Your task to perform on an android device: change keyboard looks Image 0: 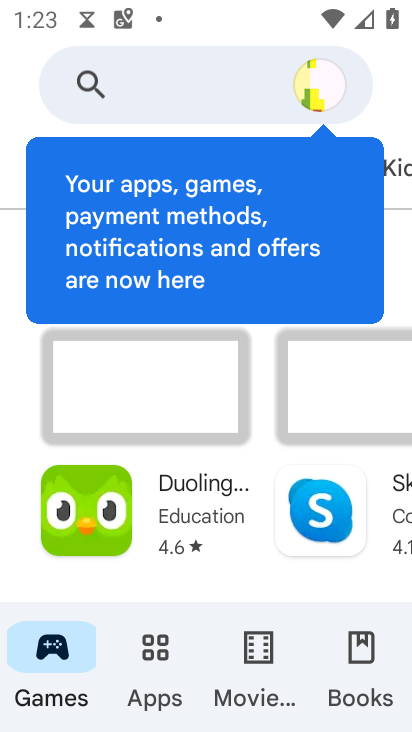
Step 0: press home button
Your task to perform on an android device: change keyboard looks Image 1: 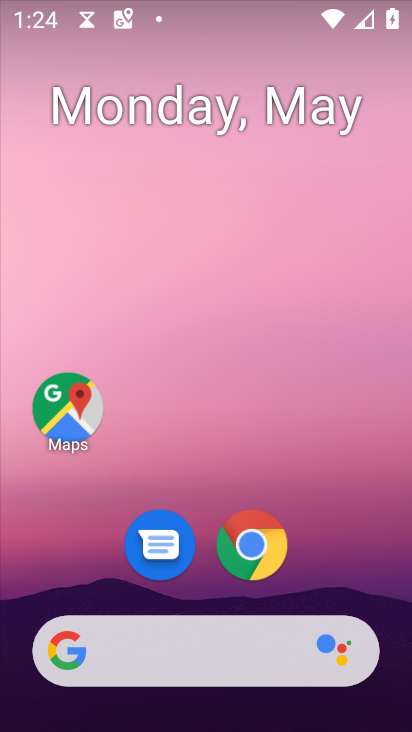
Step 1: drag from (368, 573) to (312, 304)
Your task to perform on an android device: change keyboard looks Image 2: 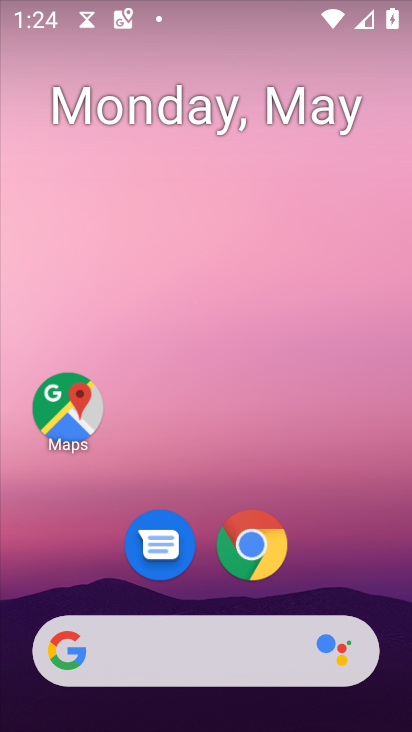
Step 2: drag from (332, 519) to (357, 297)
Your task to perform on an android device: change keyboard looks Image 3: 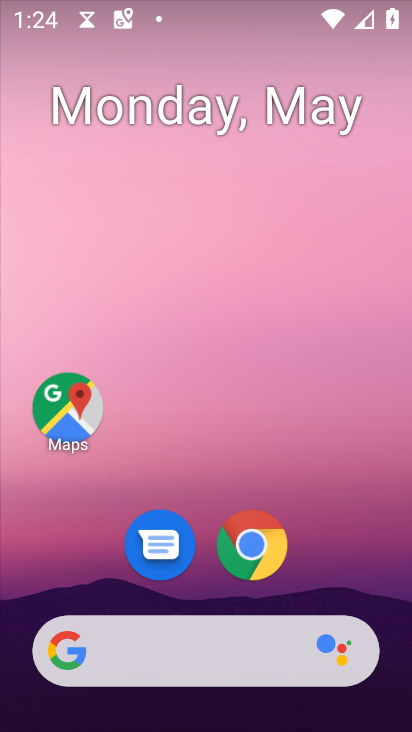
Step 3: drag from (302, 570) to (271, 251)
Your task to perform on an android device: change keyboard looks Image 4: 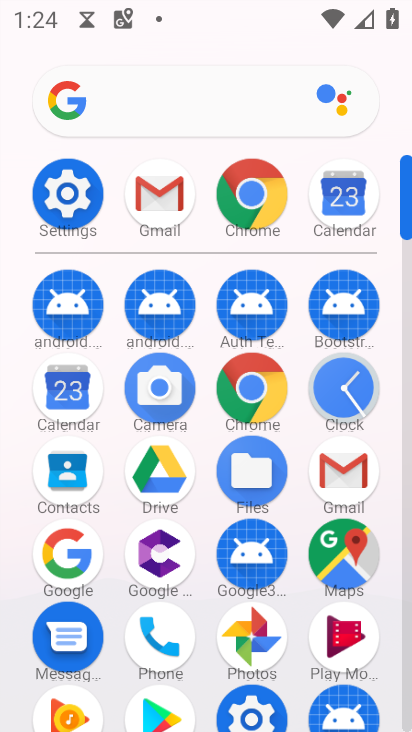
Step 4: click (77, 191)
Your task to perform on an android device: change keyboard looks Image 5: 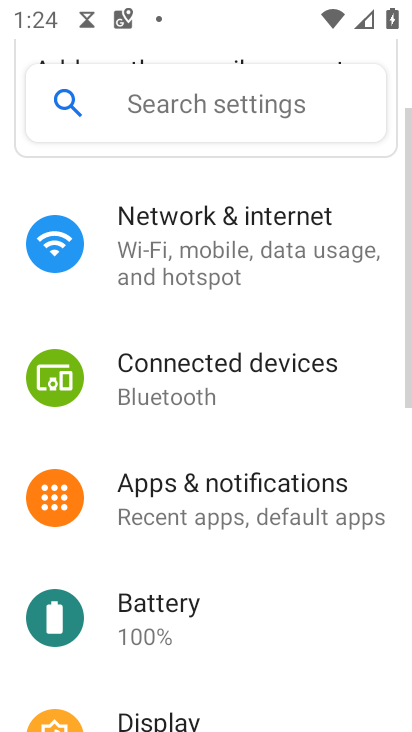
Step 5: drag from (221, 581) to (319, 162)
Your task to perform on an android device: change keyboard looks Image 6: 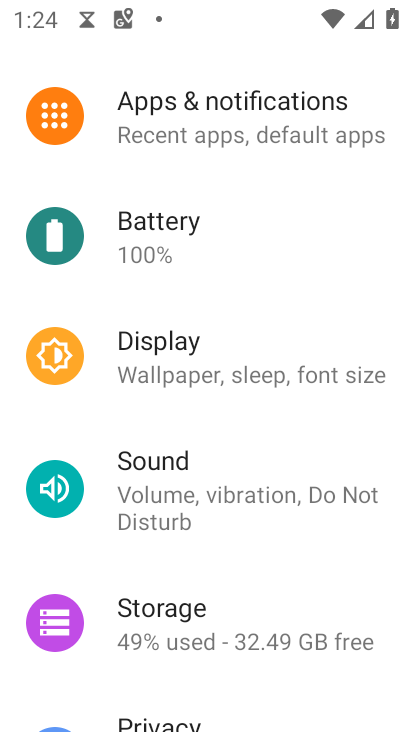
Step 6: drag from (211, 567) to (297, 241)
Your task to perform on an android device: change keyboard looks Image 7: 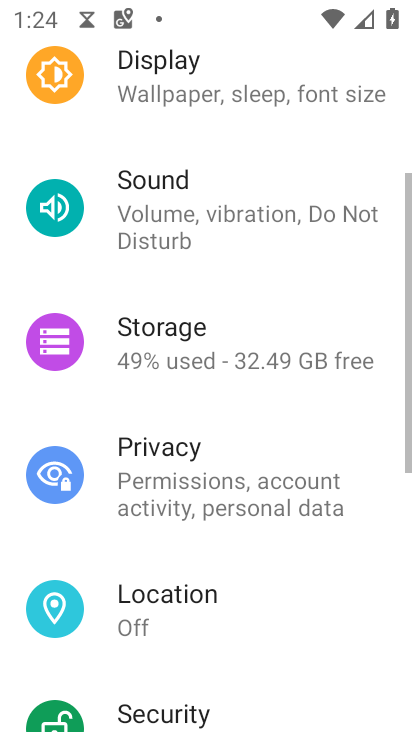
Step 7: drag from (218, 599) to (301, 210)
Your task to perform on an android device: change keyboard looks Image 8: 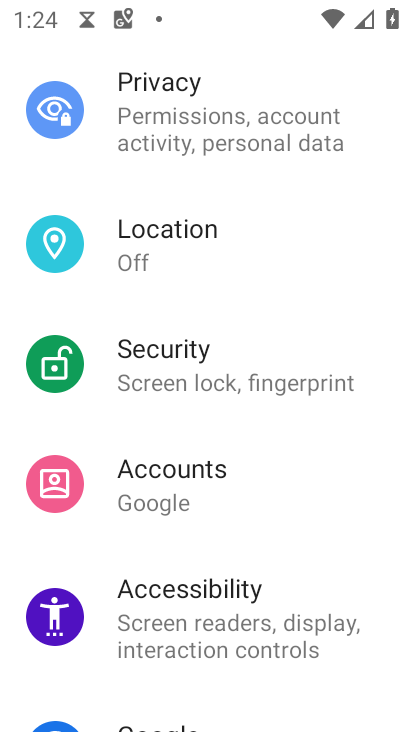
Step 8: click (178, 626)
Your task to perform on an android device: change keyboard looks Image 9: 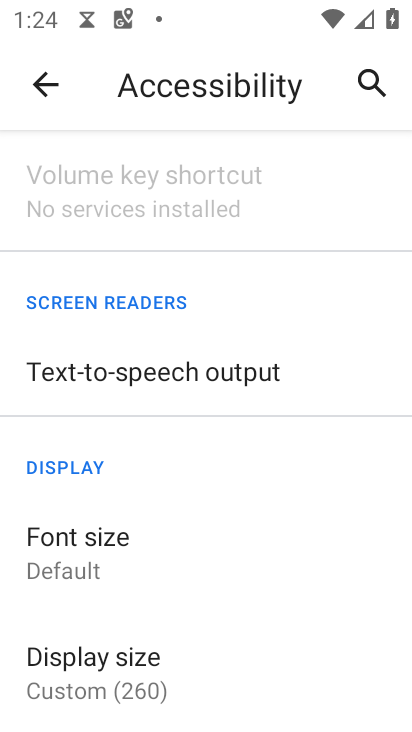
Step 9: click (38, 96)
Your task to perform on an android device: change keyboard looks Image 10: 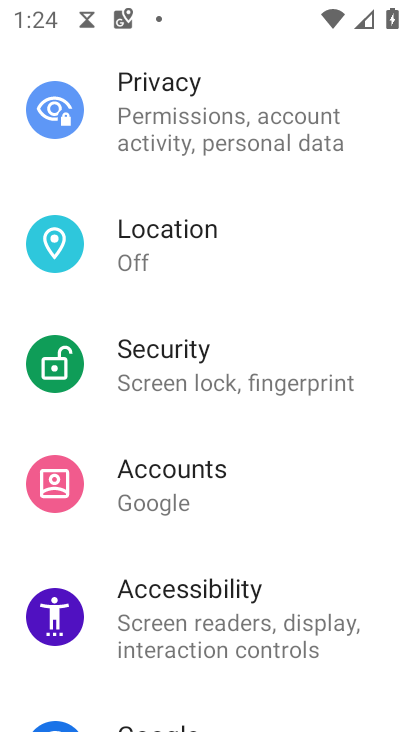
Step 10: drag from (203, 345) to (287, 73)
Your task to perform on an android device: change keyboard looks Image 11: 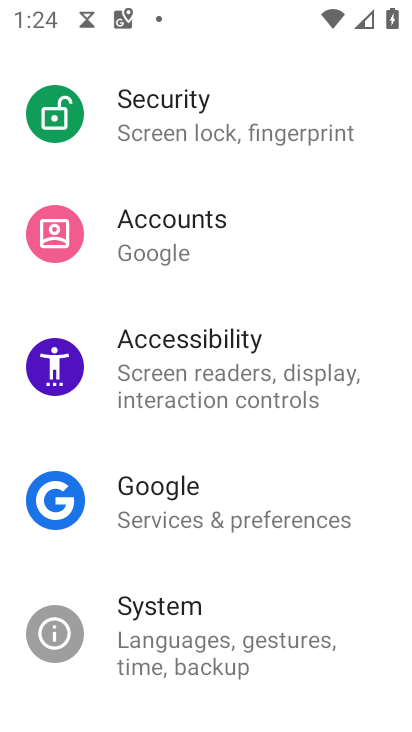
Step 11: click (213, 661)
Your task to perform on an android device: change keyboard looks Image 12: 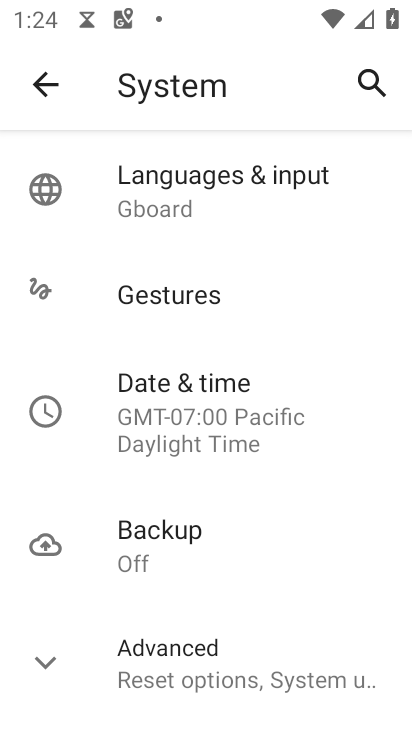
Step 12: click (176, 192)
Your task to perform on an android device: change keyboard looks Image 13: 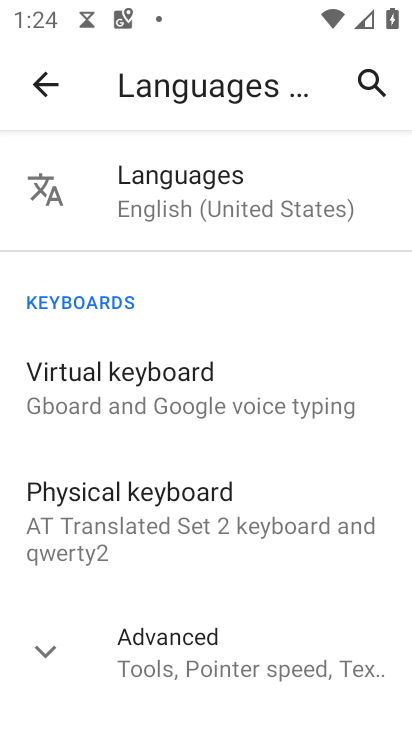
Step 13: click (126, 400)
Your task to perform on an android device: change keyboard looks Image 14: 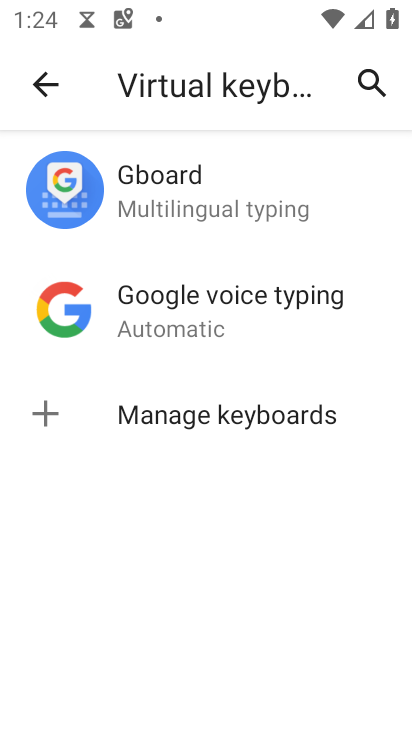
Step 14: click (169, 186)
Your task to perform on an android device: change keyboard looks Image 15: 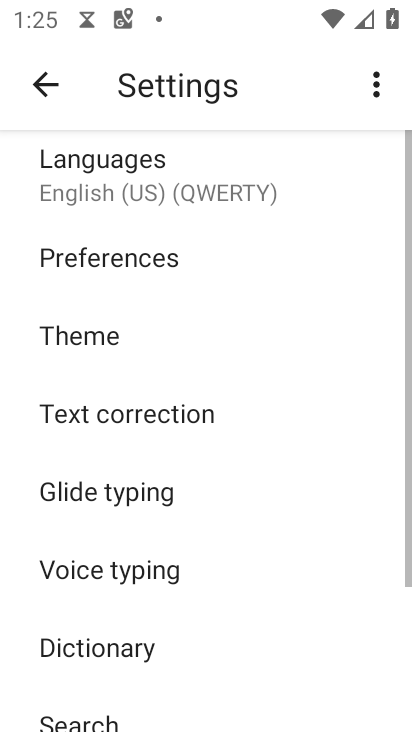
Step 15: click (172, 486)
Your task to perform on an android device: change keyboard looks Image 16: 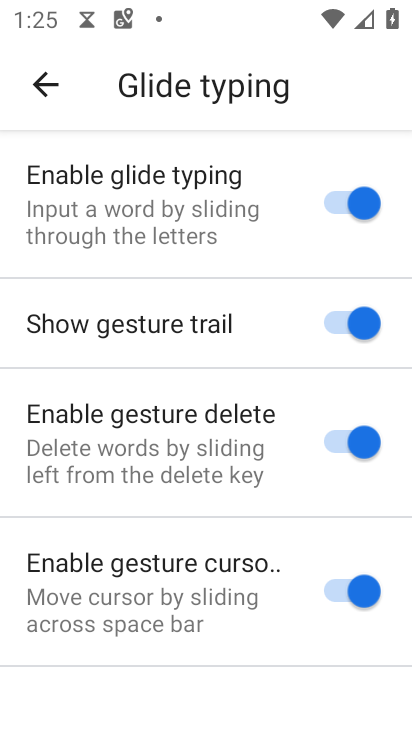
Step 16: click (51, 69)
Your task to perform on an android device: change keyboard looks Image 17: 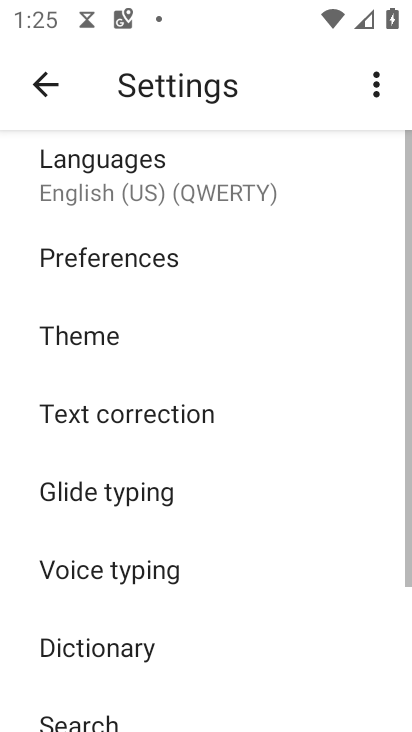
Step 17: click (142, 250)
Your task to perform on an android device: change keyboard looks Image 18: 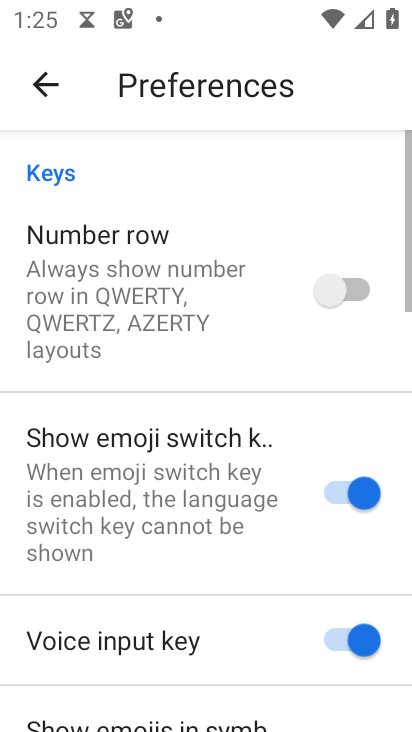
Step 18: click (48, 83)
Your task to perform on an android device: change keyboard looks Image 19: 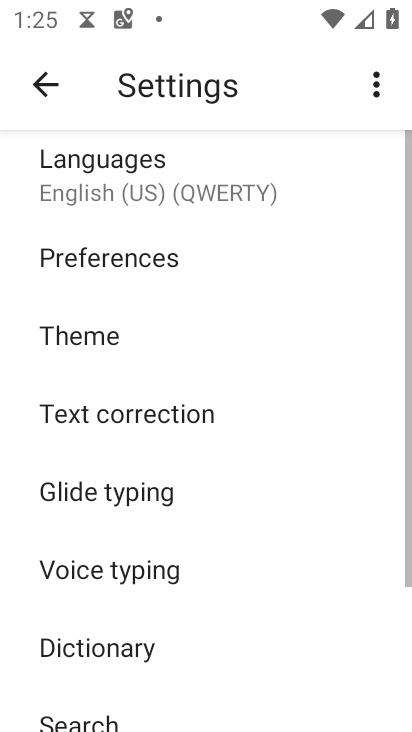
Step 19: click (124, 347)
Your task to perform on an android device: change keyboard looks Image 20: 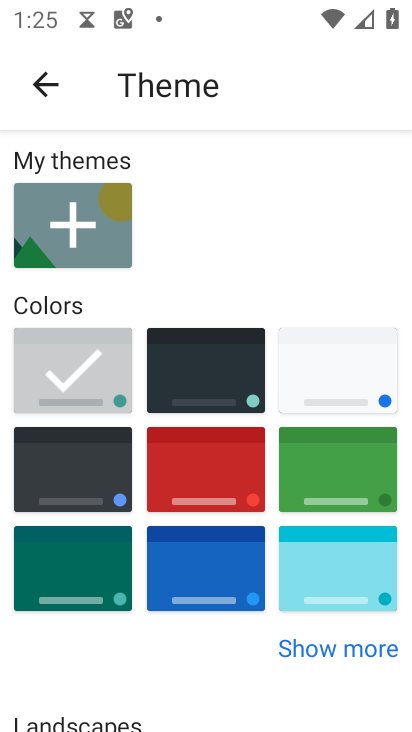
Step 20: click (256, 502)
Your task to perform on an android device: change keyboard looks Image 21: 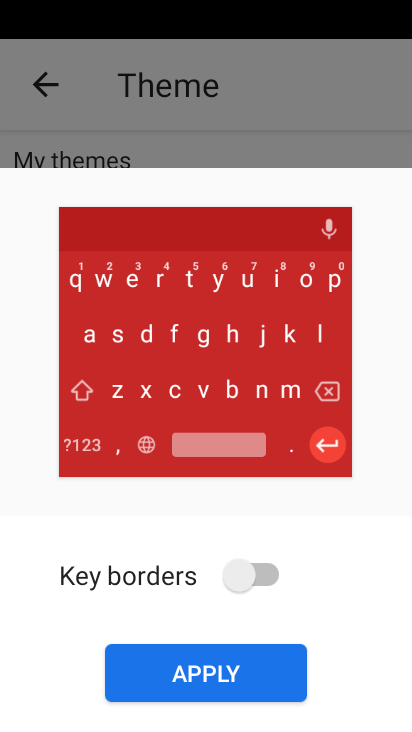
Step 21: click (242, 559)
Your task to perform on an android device: change keyboard looks Image 22: 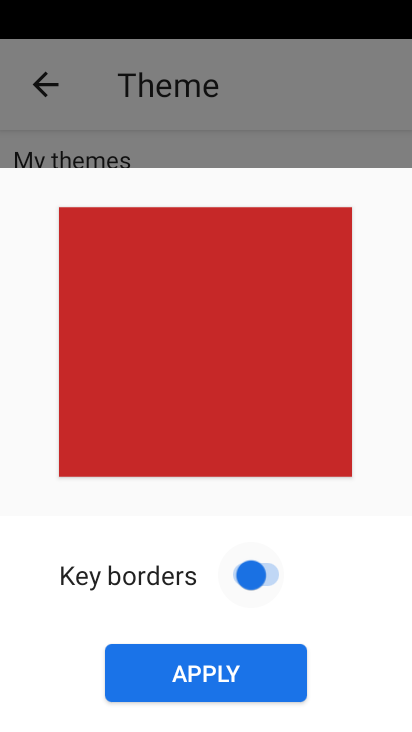
Step 22: click (221, 683)
Your task to perform on an android device: change keyboard looks Image 23: 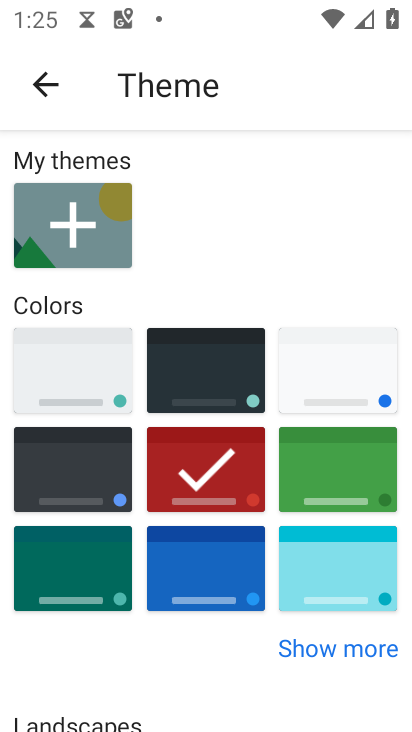
Step 23: task complete